Your task to perform on an android device: turn on airplane mode Image 0: 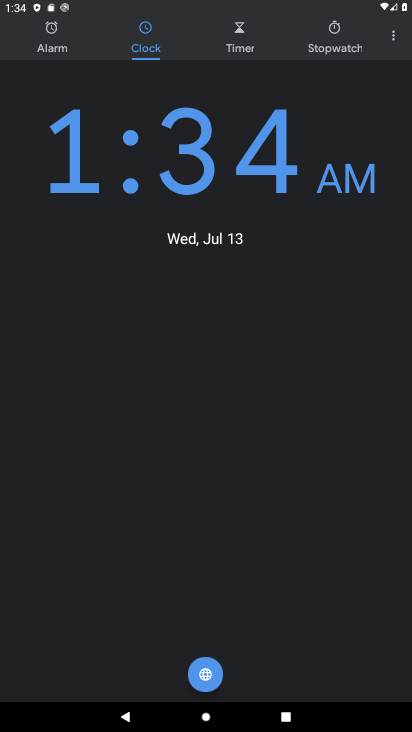
Step 0: press home button
Your task to perform on an android device: turn on airplane mode Image 1: 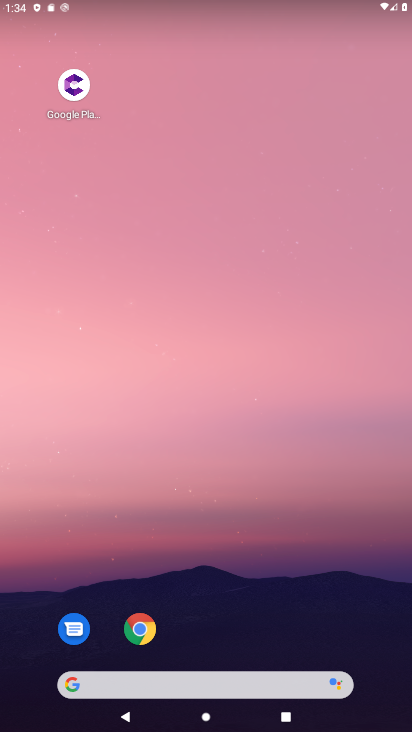
Step 1: drag from (221, 682) to (287, 32)
Your task to perform on an android device: turn on airplane mode Image 2: 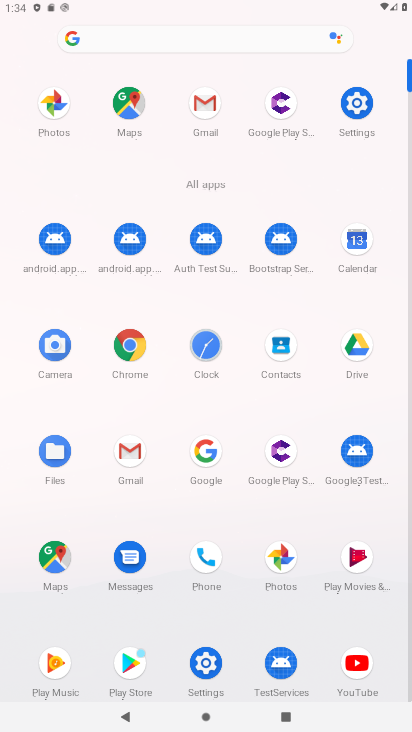
Step 2: click (368, 95)
Your task to perform on an android device: turn on airplane mode Image 3: 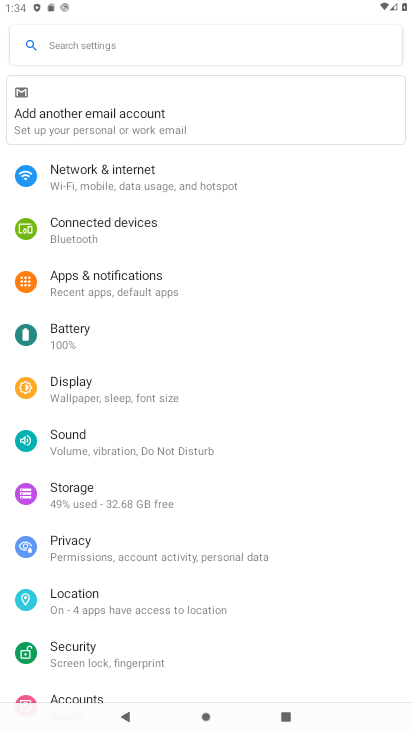
Step 3: click (138, 179)
Your task to perform on an android device: turn on airplane mode Image 4: 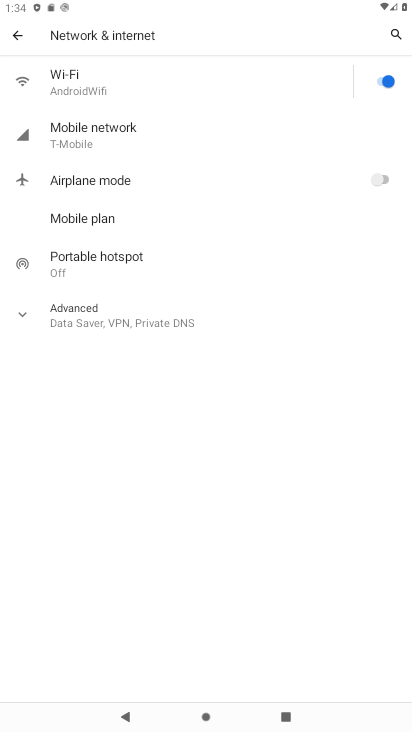
Step 4: click (380, 180)
Your task to perform on an android device: turn on airplane mode Image 5: 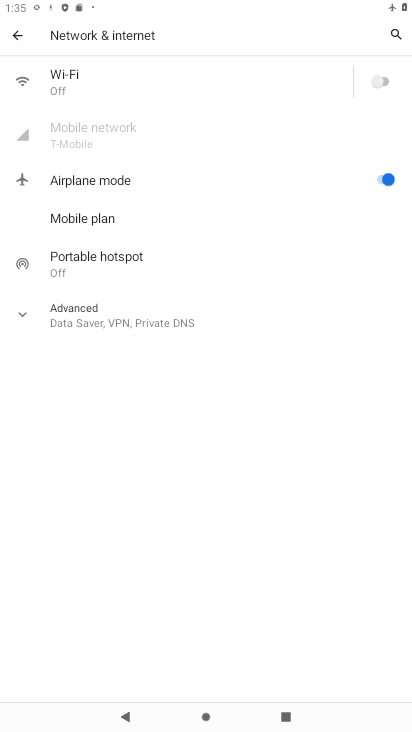
Step 5: task complete